Your task to perform on an android device: allow cookies in the chrome app Image 0: 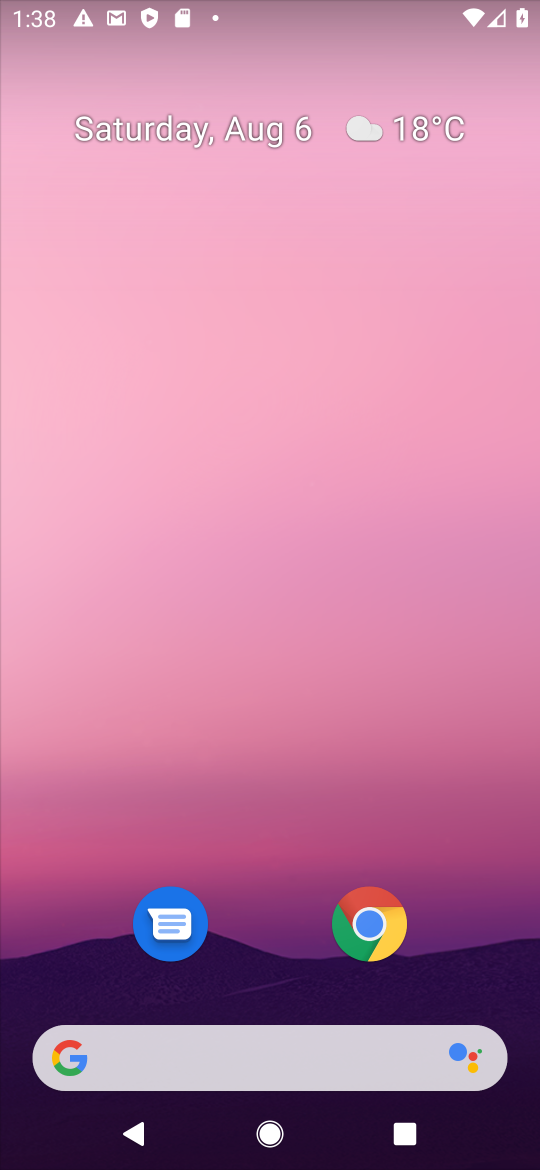
Step 0: drag from (285, 1052) to (221, 427)
Your task to perform on an android device: allow cookies in the chrome app Image 1: 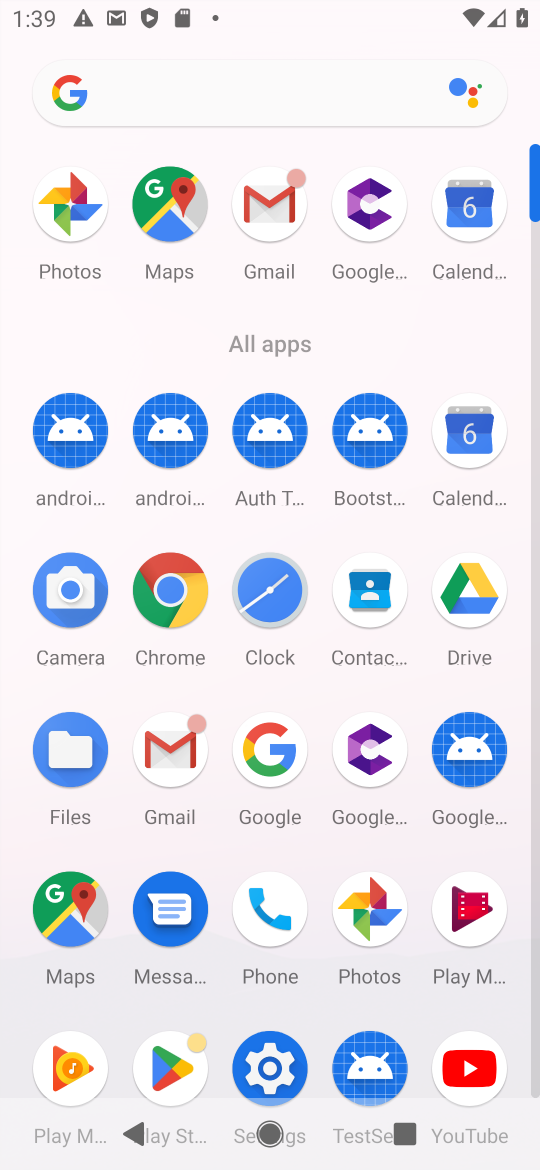
Step 1: click (174, 593)
Your task to perform on an android device: allow cookies in the chrome app Image 2: 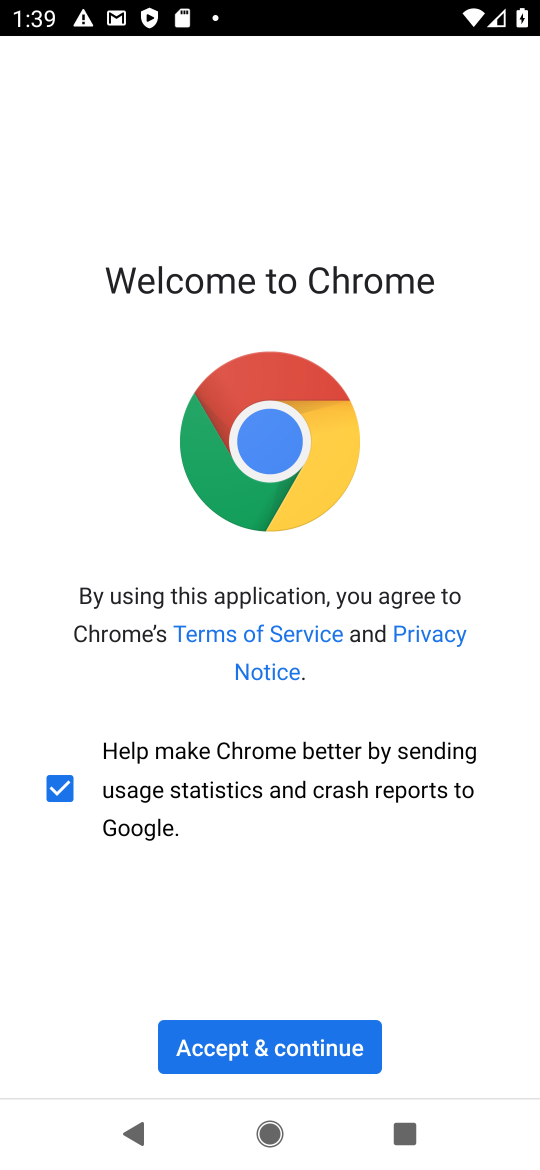
Step 2: click (276, 1066)
Your task to perform on an android device: allow cookies in the chrome app Image 3: 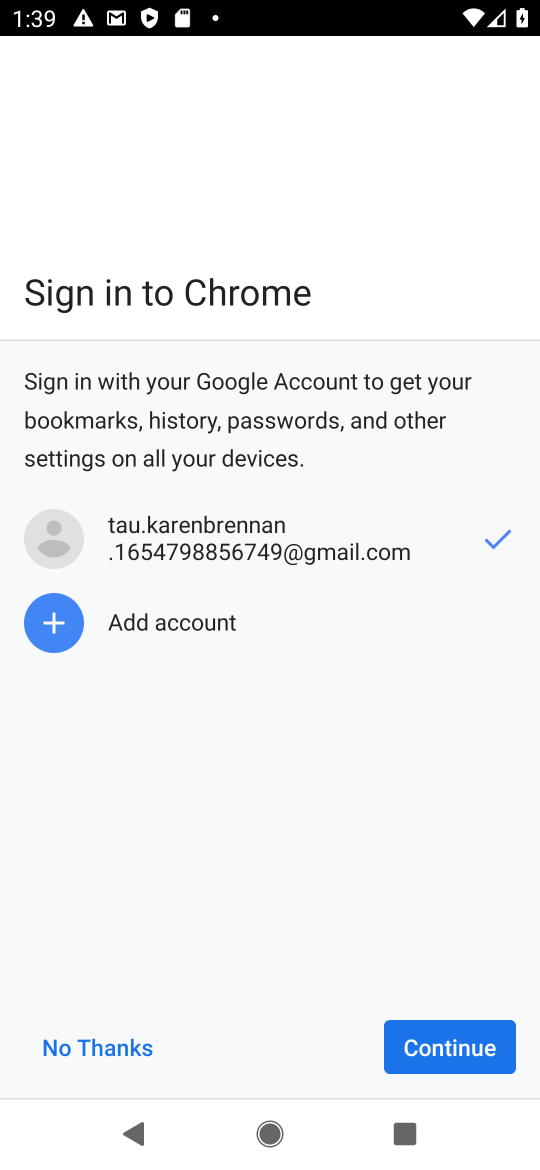
Step 3: click (80, 1027)
Your task to perform on an android device: allow cookies in the chrome app Image 4: 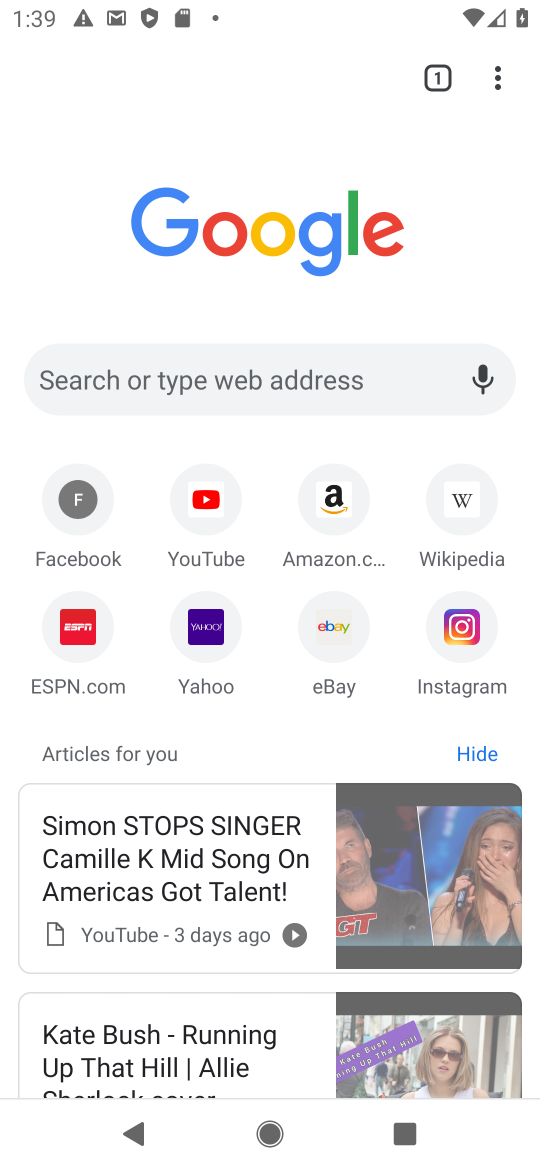
Step 4: click (487, 65)
Your task to perform on an android device: allow cookies in the chrome app Image 5: 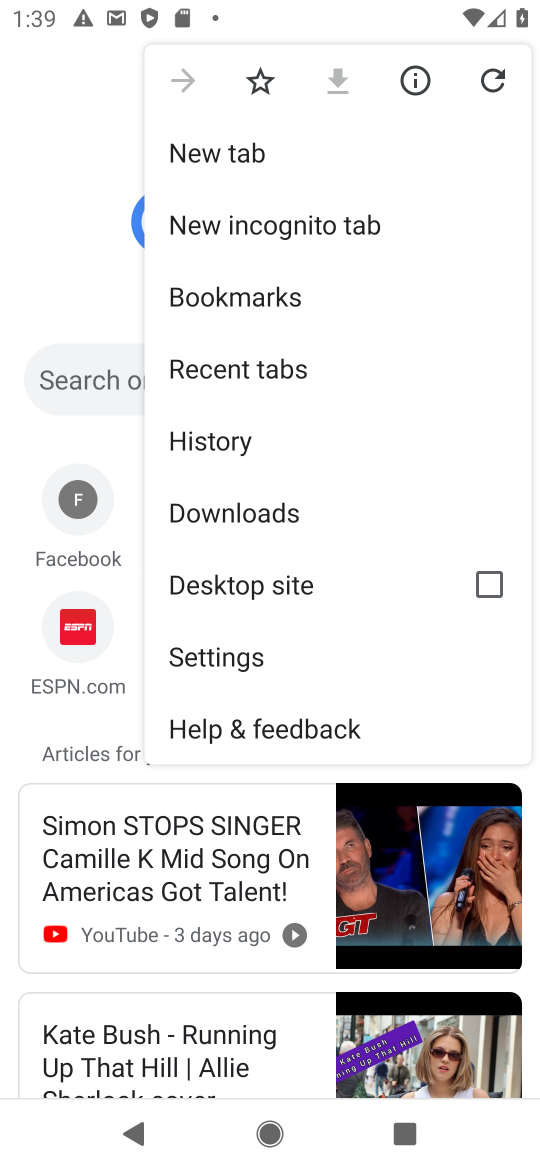
Step 5: click (258, 660)
Your task to perform on an android device: allow cookies in the chrome app Image 6: 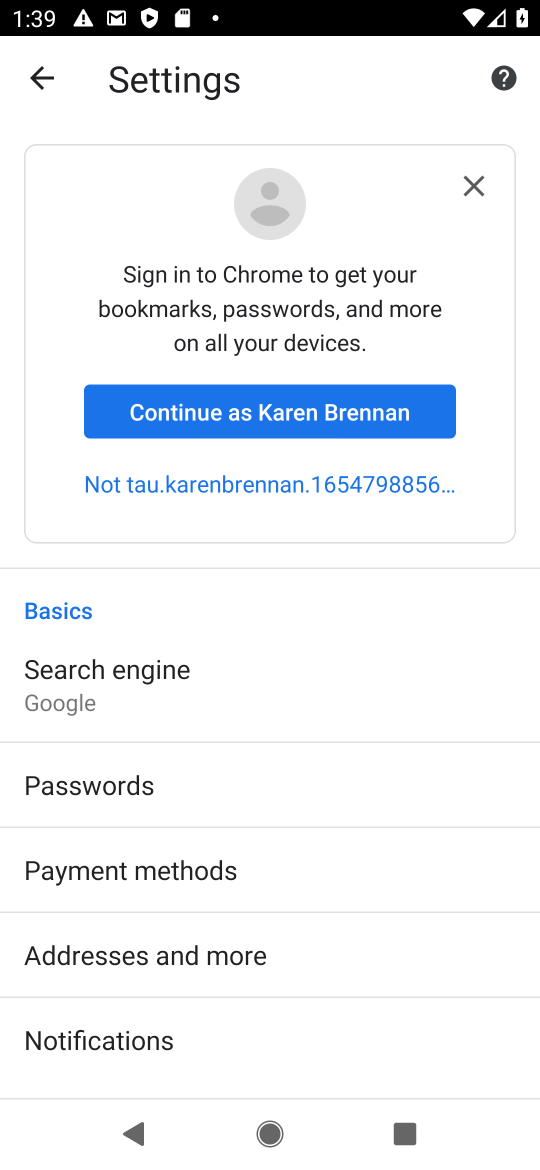
Step 6: drag from (277, 1046) to (396, 373)
Your task to perform on an android device: allow cookies in the chrome app Image 7: 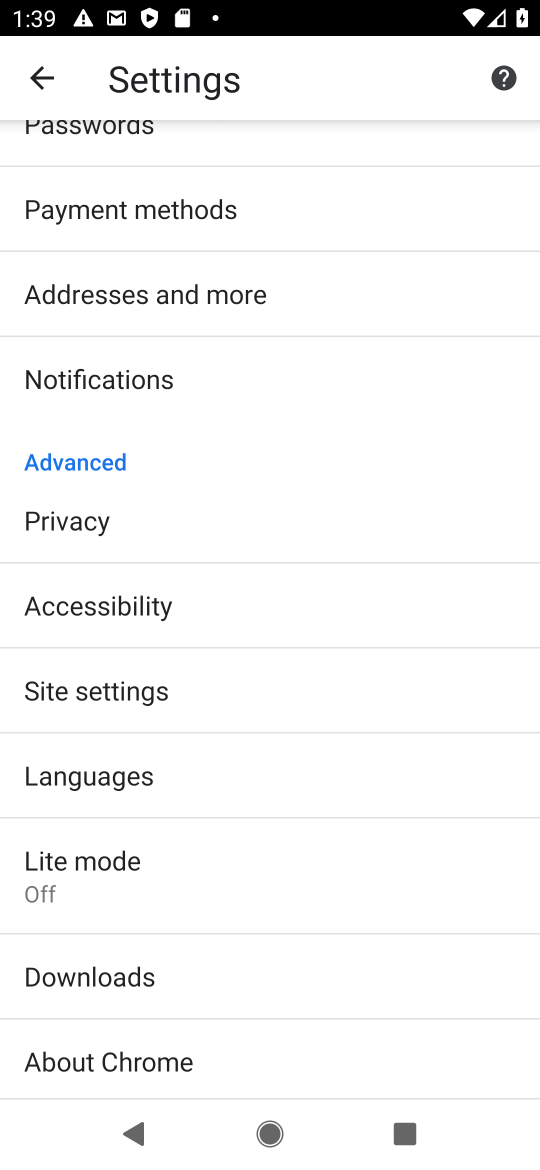
Step 7: click (218, 713)
Your task to perform on an android device: allow cookies in the chrome app Image 8: 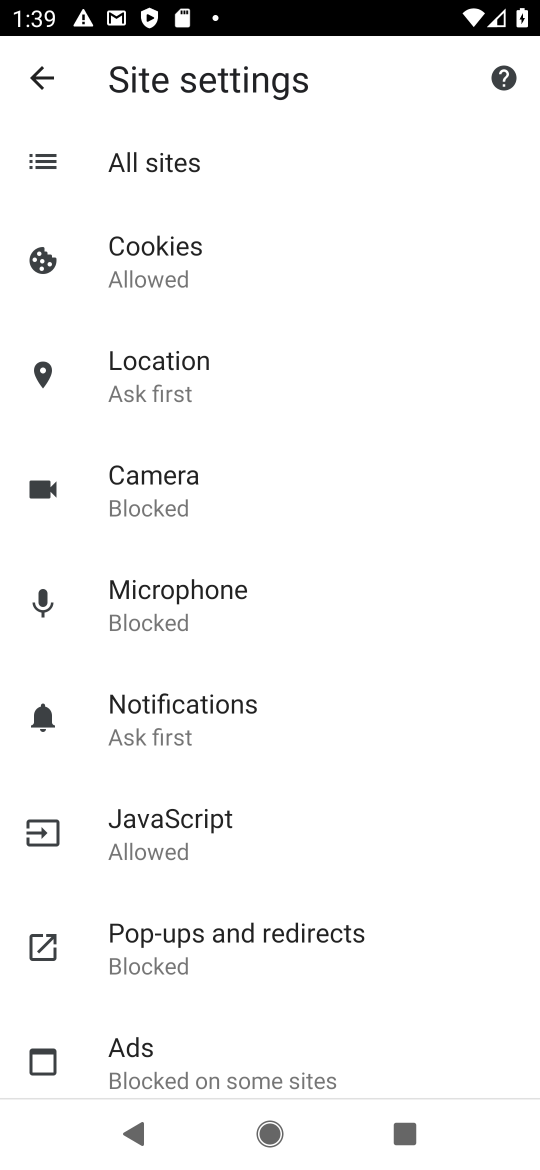
Step 8: click (162, 273)
Your task to perform on an android device: allow cookies in the chrome app Image 9: 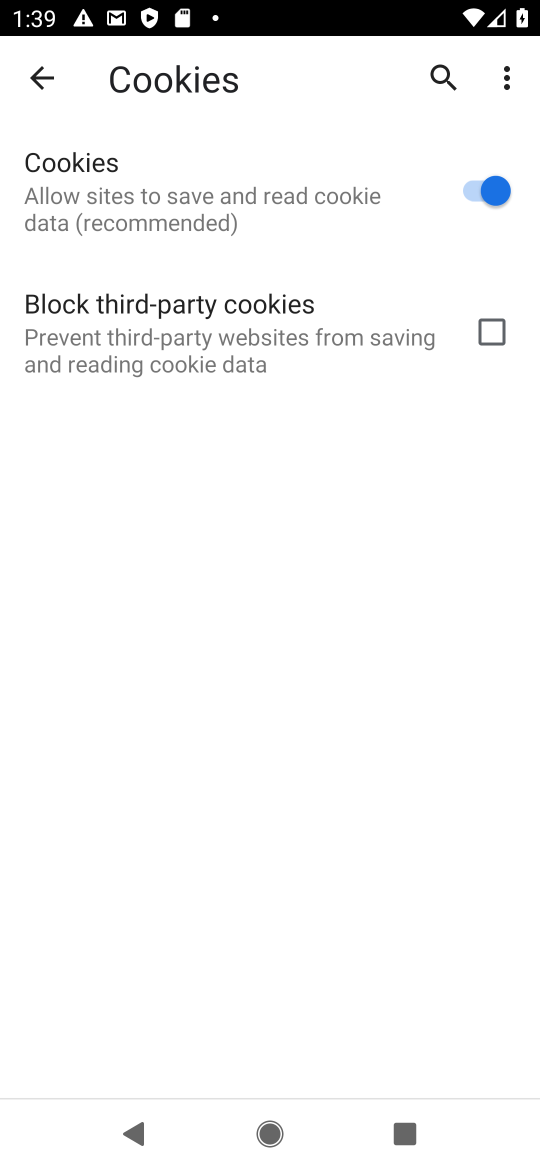
Step 9: task complete